Your task to perform on an android device: Go to Maps Image 0: 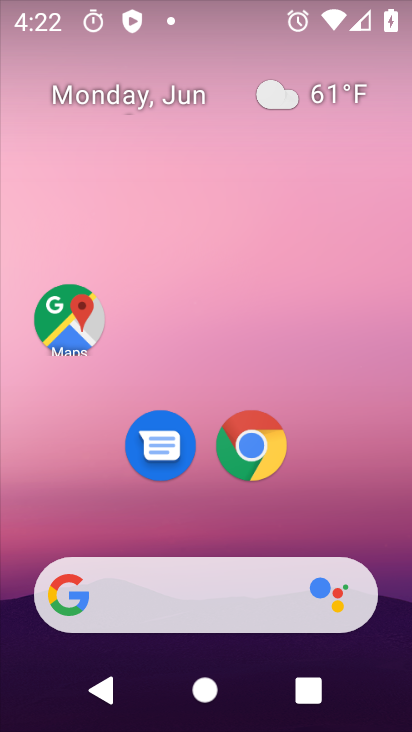
Step 0: click (78, 319)
Your task to perform on an android device: Go to Maps Image 1: 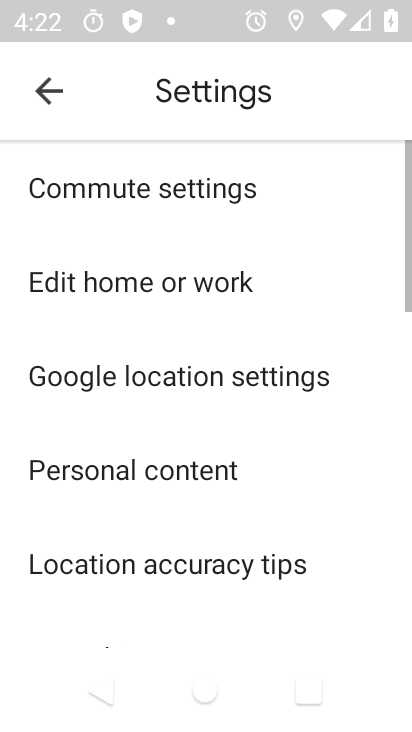
Step 1: click (53, 97)
Your task to perform on an android device: Go to Maps Image 2: 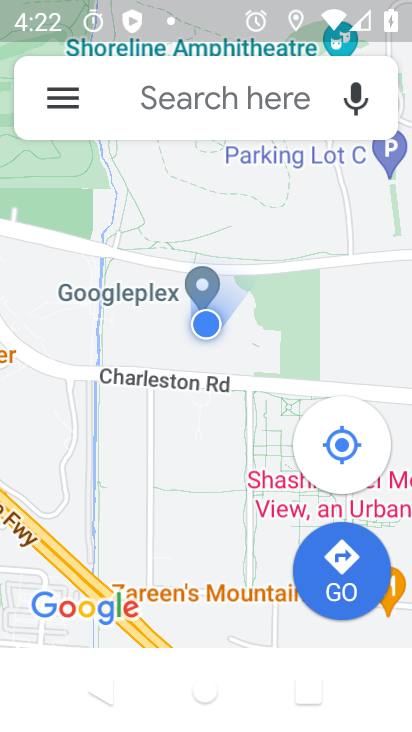
Step 2: task complete